Your task to perform on an android device: turn on bluetooth scan Image 0: 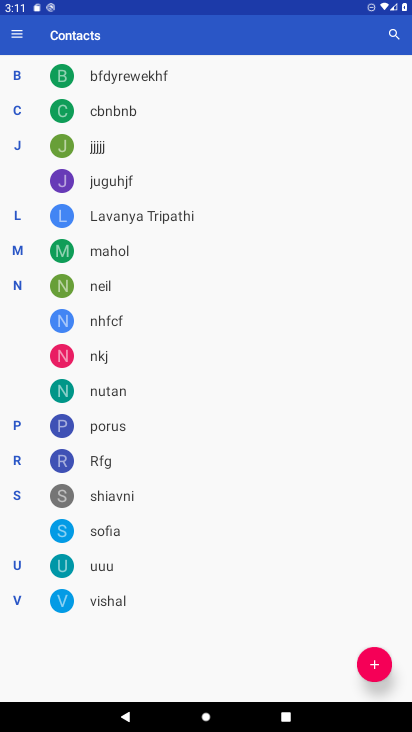
Step 0: press home button
Your task to perform on an android device: turn on bluetooth scan Image 1: 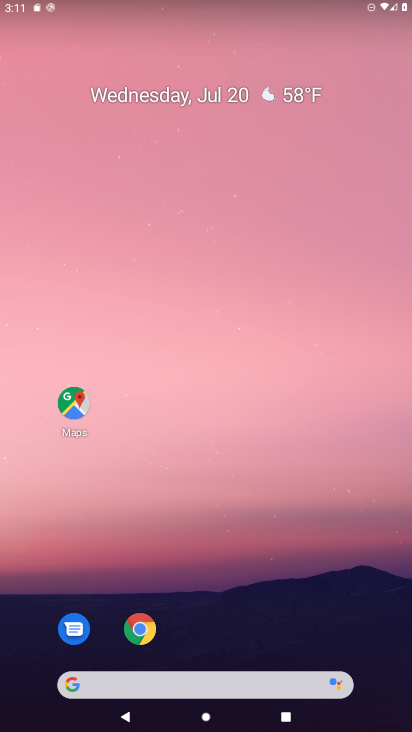
Step 1: drag from (221, 606) to (219, 87)
Your task to perform on an android device: turn on bluetooth scan Image 2: 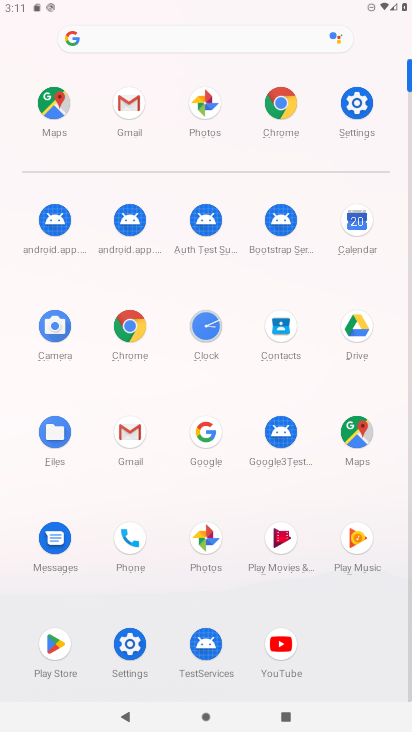
Step 2: drag from (164, 509) to (193, 162)
Your task to perform on an android device: turn on bluetooth scan Image 3: 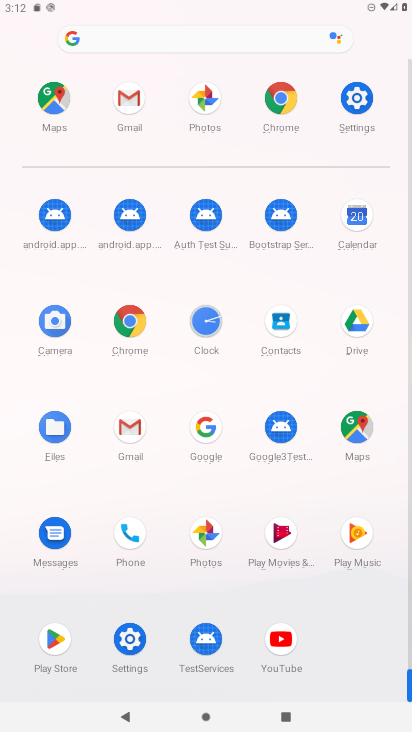
Step 3: click (132, 645)
Your task to perform on an android device: turn on bluetooth scan Image 4: 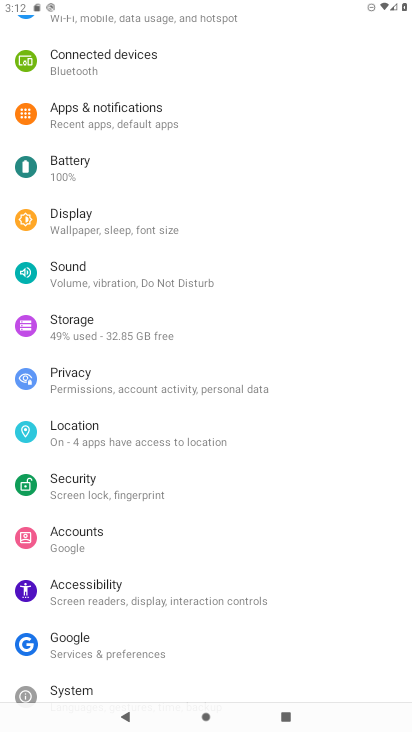
Step 4: click (81, 421)
Your task to perform on an android device: turn on bluetooth scan Image 5: 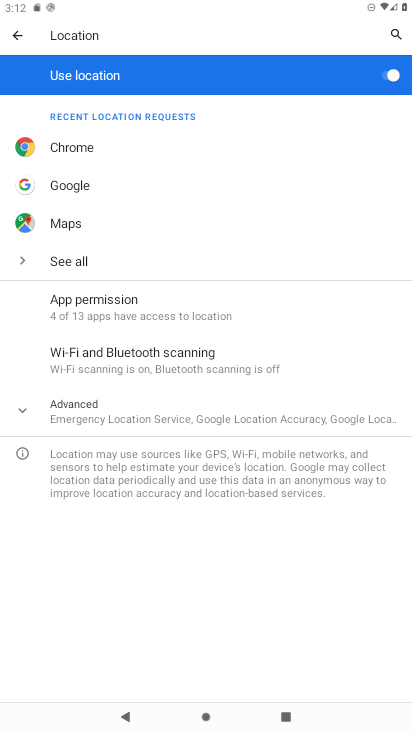
Step 5: click (219, 410)
Your task to perform on an android device: turn on bluetooth scan Image 6: 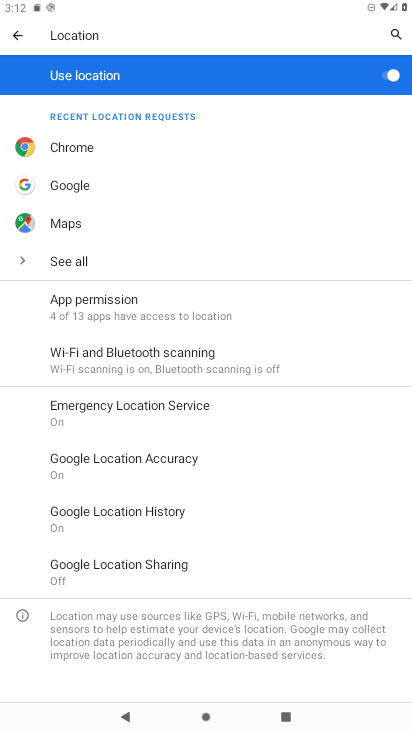
Step 6: click (178, 354)
Your task to perform on an android device: turn on bluetooth scan Image 7: 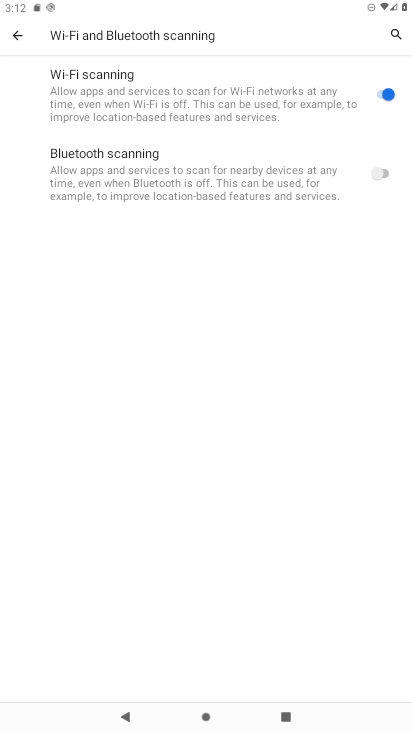
Step 7: click (350, 180)
Your task to perform on an android device: turn on bluetooth scan Image 8: 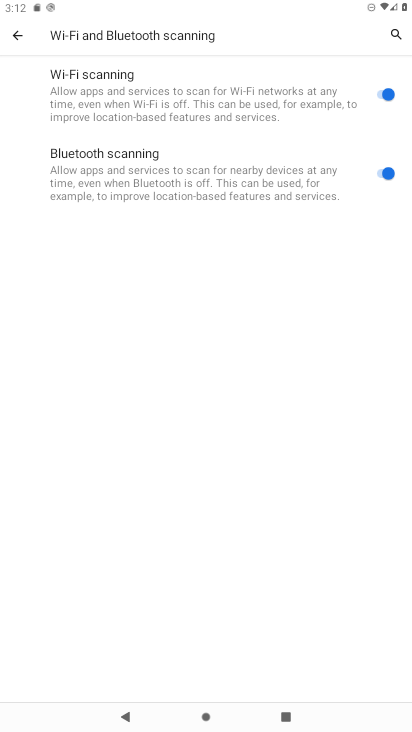
Step 8: task complete